Your task to perform on an android device: set the timer Image 0: 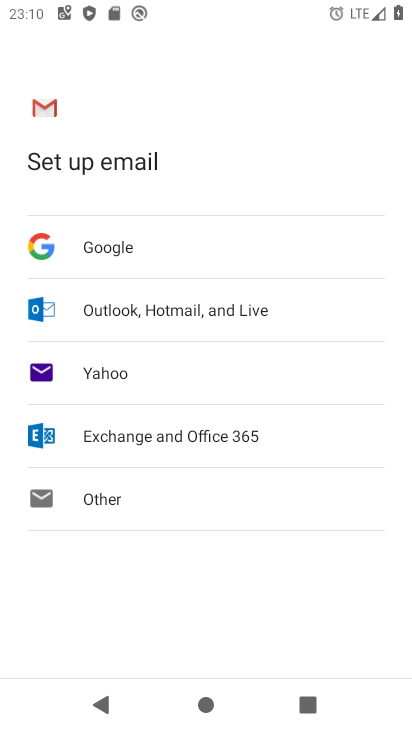
Step 0: press home button
Your task to perform on an android device: set the timer Image 1: 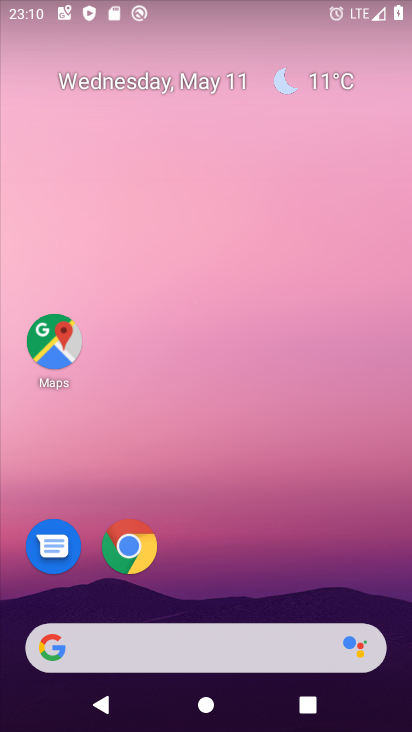
Step 1: drag from (392, 610) to (313, 92)
Your task to perform on an android device: set the timer Image 2: 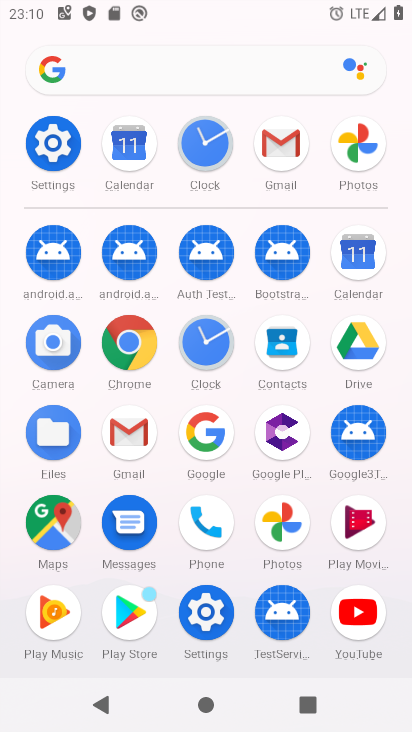
Step 2: click (205, 341)
Your task to perform on an android device: set the timer Image 3: 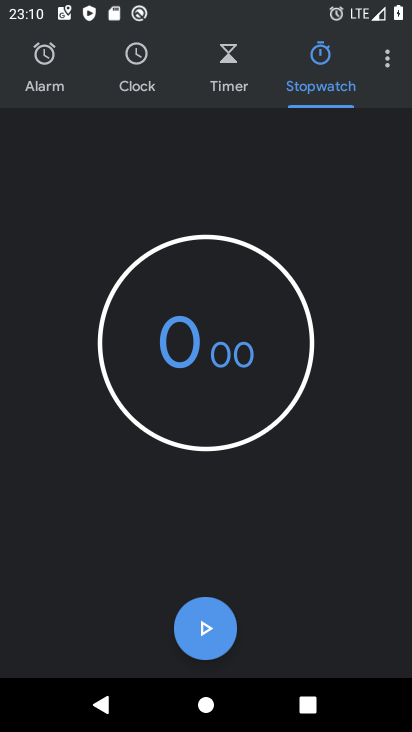
Step 3: click (227, 66)
Your task to perform on an android device: set the timer Image 4: 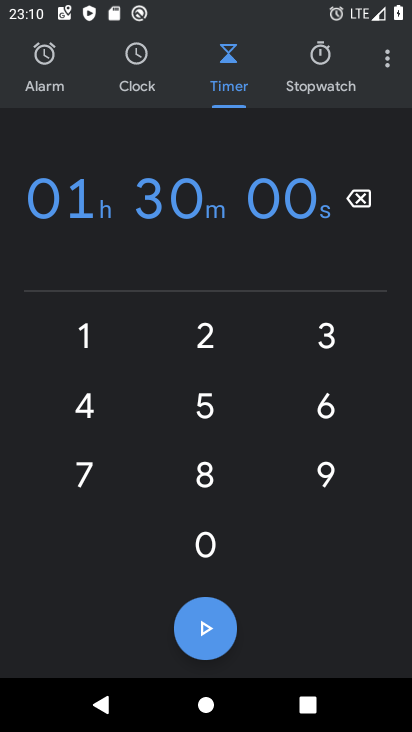
Step 4: task complete